Your task to perform on an android device: Open display settings Image 0: 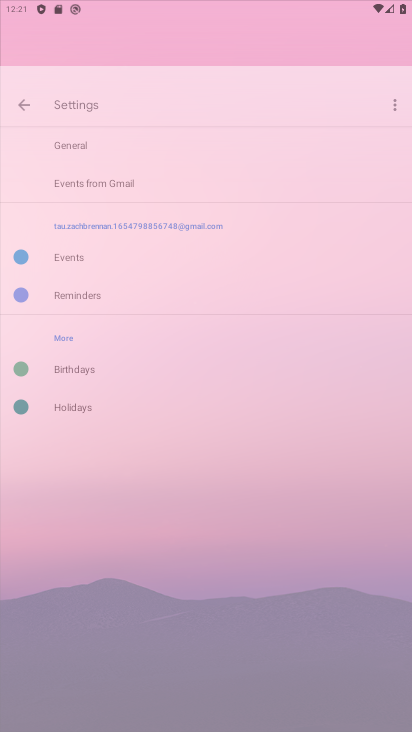
Step 0: drag from (245, 629) to (244, 210)
Your task to perform on an android device: Open display settings Image 1: 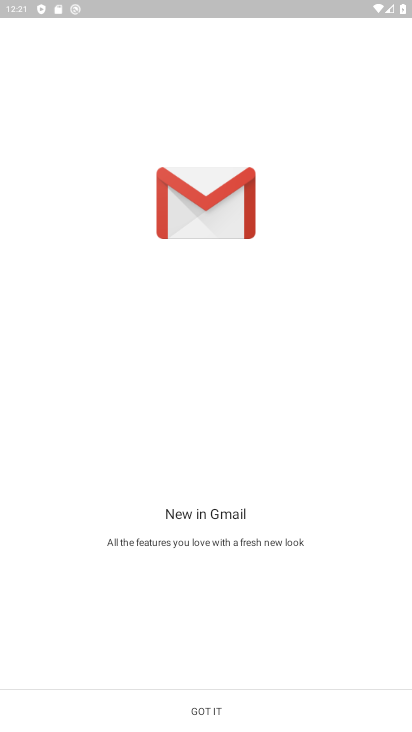
Step 1: press home button
Your task to perform on an android device: Open display settings Image 2: 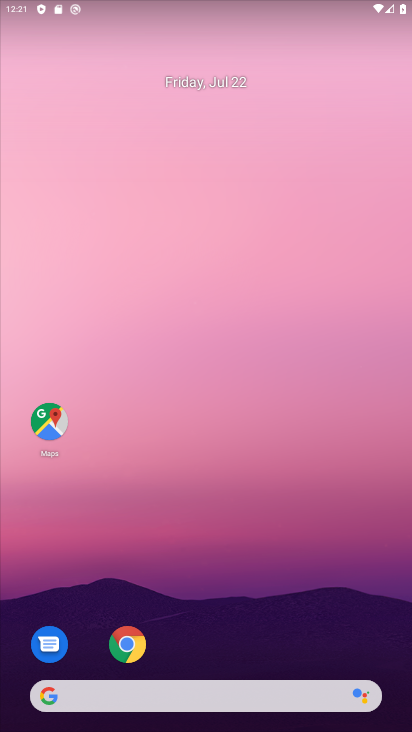
Step 2: drag from (202, 641) to (260, 144)
Your task to perform on an android device: Open display settings Image 3: 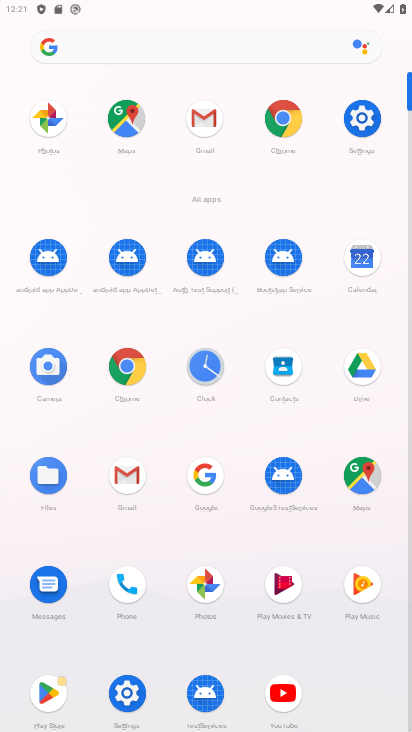
Step 3: click (364, 103)
Your task to perform on an android device: Open display settings Image 4: 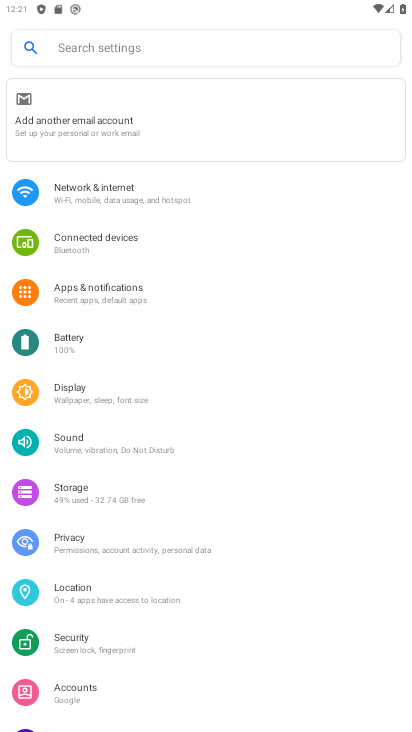
Step 4: click (104, 391)
Your task to perform on an android device: Open display settings Image 5: 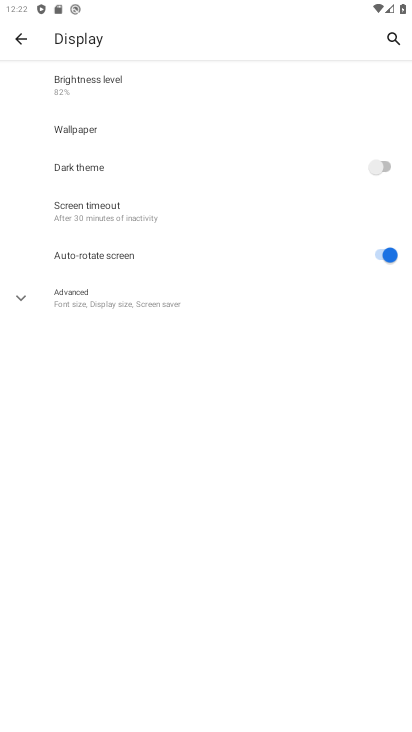
Step 5: task complete